Your task to perform on an android device: turn on wifi Image 0: 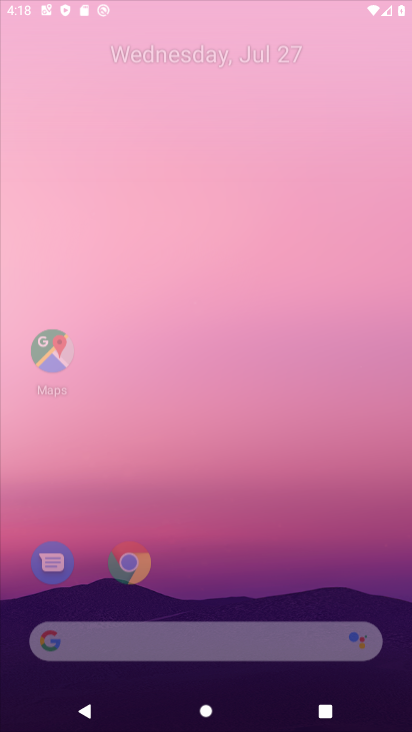
Step 0: click (247, 208)
Your task to perform on an android device: turn on wifi Image 1: 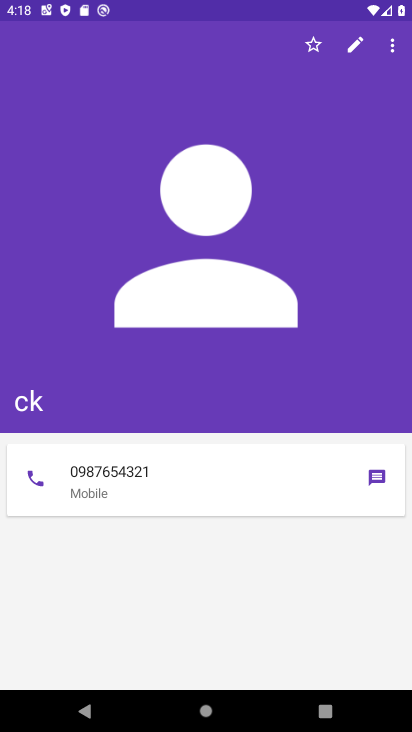
Step 1: press home button
Your task to perform on an android device: turn on wifi Image 2: 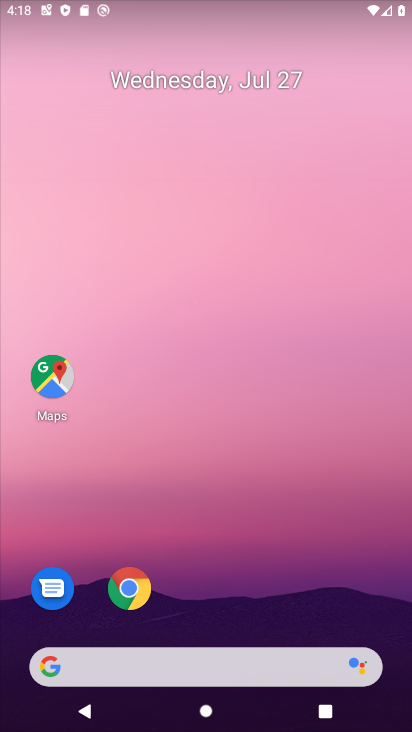
Step 2: drag from (252, 728) to (251, 290)
Your task to perform on an android device: turn on wifi Image 3: 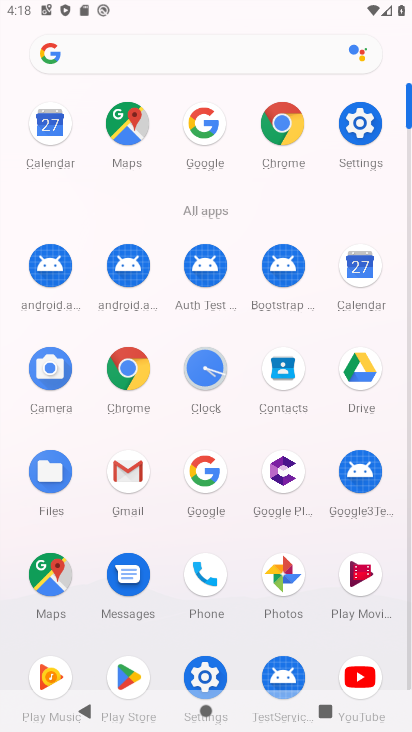
Step 3: click (362, 118)
Your task to perform on an android device: turn on wifi Image 4: 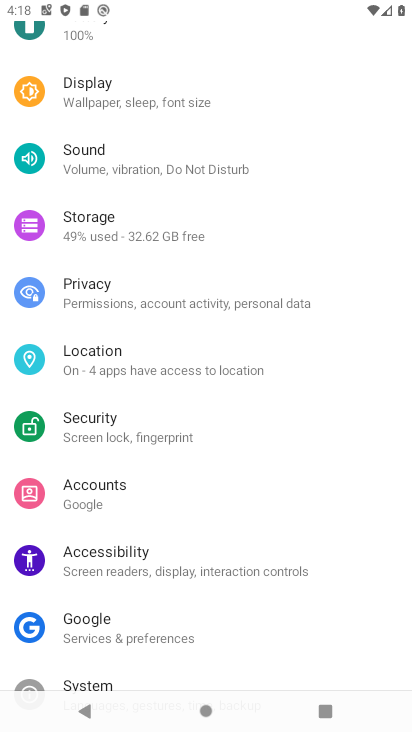
Step 4: drag from (141, 169) to (141, 564)
Your task to perform on an android device: turn on wifi Image 5: 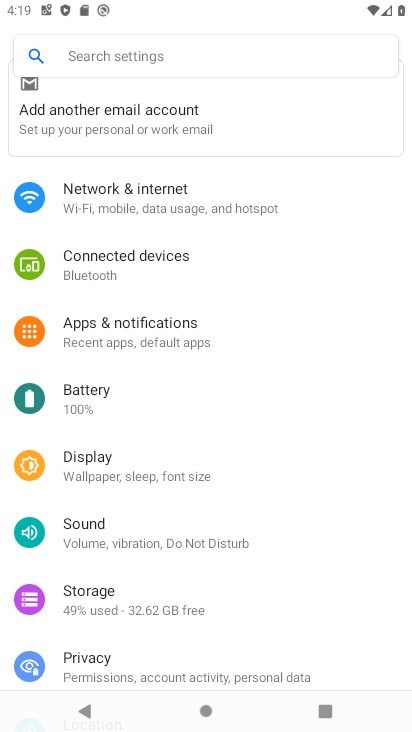
Step 5: click (118, 188)
Your task to perform on an android device: turn on wifi Image 6: 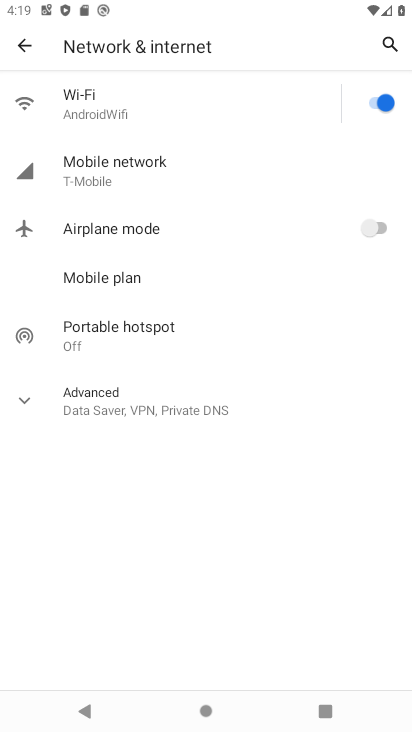
Step 6: task complete